Your task to perform on an android device: Clear all items from cart on walmart.com. Search for beats solo 3 on walmart.com, select the first entry, and add it to the cart. Image 0: 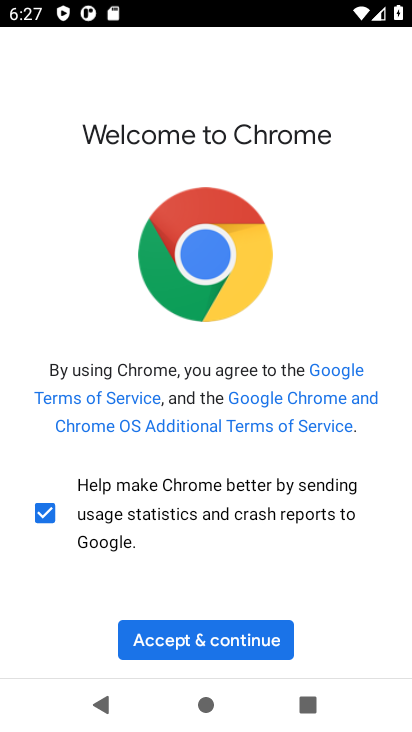
Step 0: click (187, 647)
Your task to perform on an android device: Clear all items from cart on walmart.com. Search for beats solo 3 on walmart.com, select the first entry, and add it to the cart. Image 1: 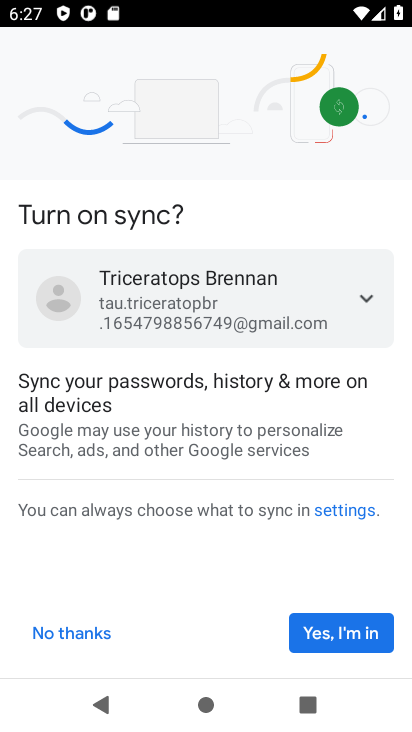
Step 1: click (70, 637)
Your task to perform on an android device: Clear all items from cart on walmart.com. Search for beats solo 3 on walmart.com, select the first entry, and add it to the cart. Image 2: 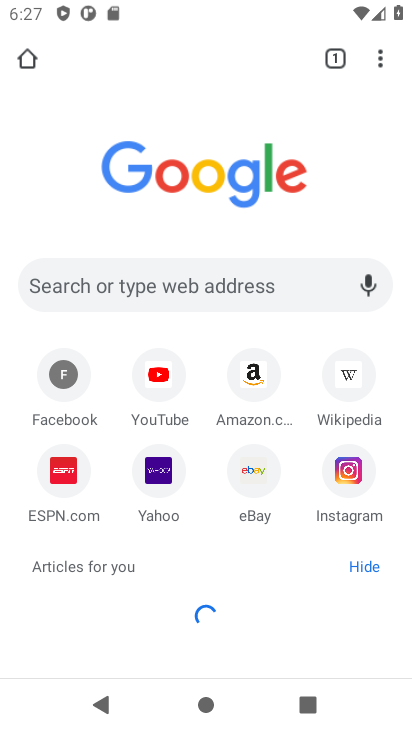
Step 2: click (83, 283)
Your task to perform on an android device: Clear all items from cart on walmart.com. Search for beats solo 3 on walmart.com, select the first entry, and add it to the cart. Image 3: 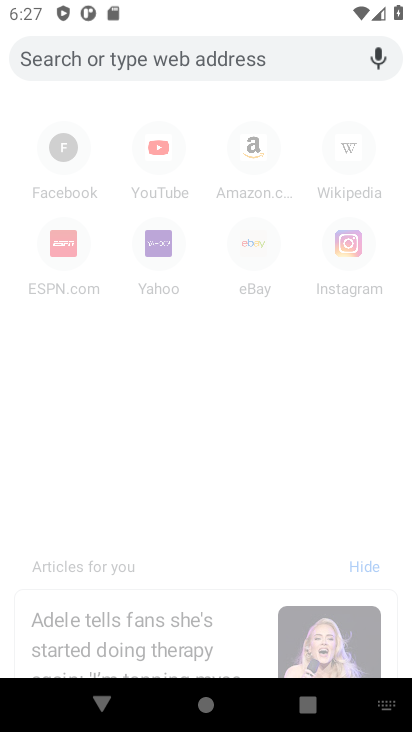
Step 3: type "walmart.com"
Your task to perform on an android device: Clear all items from cart on walmart.com. Search for beats solo 3 on walmart.com, select the first entry, and add it to the cart. Image 4: 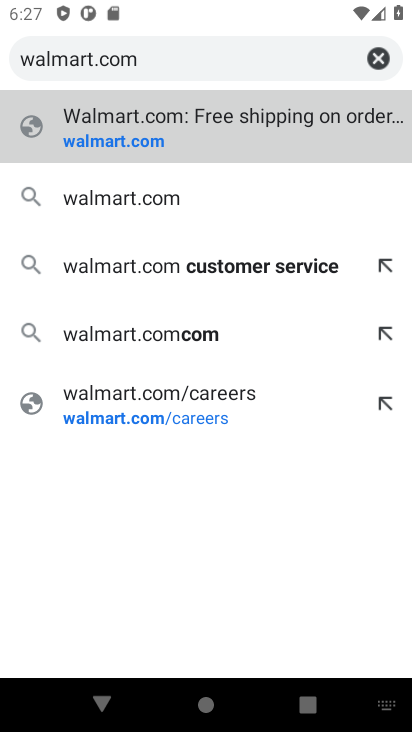
Step 4: click (95, 153)
Your task to perform on an android device: Clear all items from cart on walmart.com. Search for beats solo 3 on walmart.com, select the first entry, and add it to the cart. Image 5: 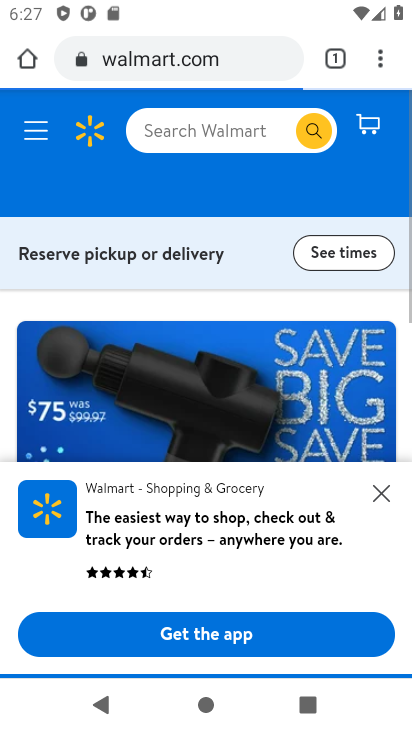
Step 5: click (371, 129)
Your task to perform on an android device: Clear all items from cart on walmart.com. Search for beats solo 3 on walmart.com, select the first entry, and add it to the cart. Image 6: 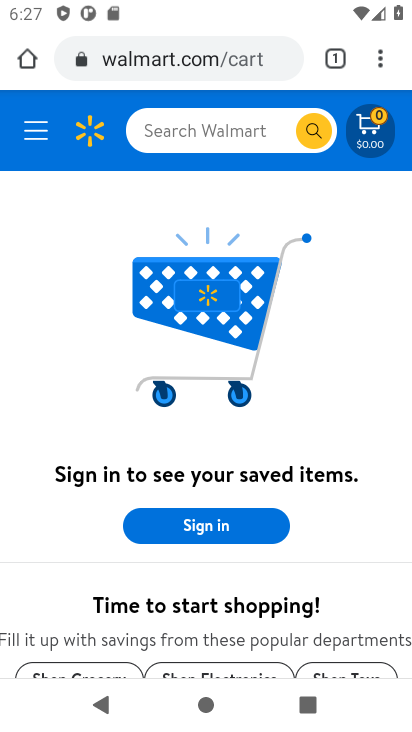
Step 6: click (163, 138)
Your task to perform on an android device: Clear all items from cart on walmart.com. Search for beats solo 3 on walmart.com, select the first entry, and add it to the cart. Image 7: 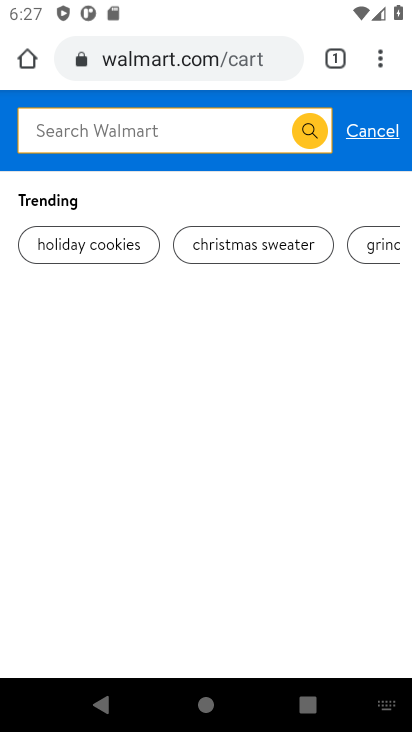
Step 7: type "beats solo 3"
Your task to perform on an android device: Clear all items from cart on walmart.com. Search for beats solo 3 on walmart.com, select the first entry, and add it to the cart. Image 8: 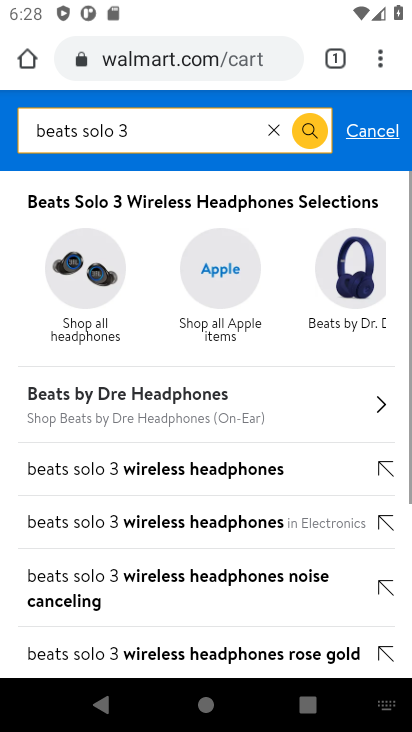
Step 8: click (308, 135)
Your task to perform on an android device: Clear all items from cart on walmart.com. Search for beats solo 3 on walmart.com, select the first entry, and add it to the cart. Image 9: 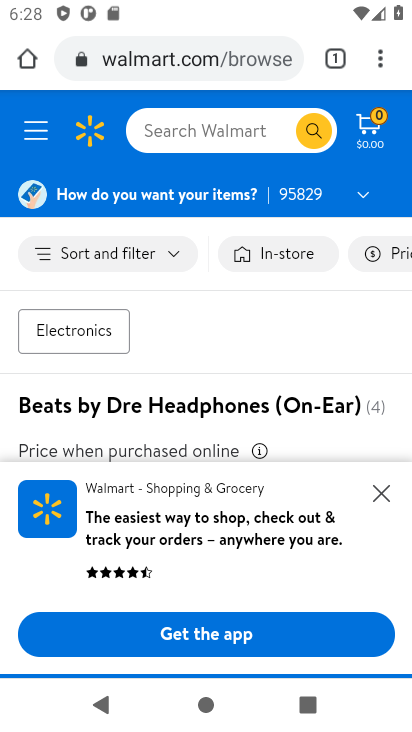
Step 9: click (381, 494)
Your task to perform on an android device: Clear all items from cart on walmart.com. Search for beats solo 3 on walmart.com, select the first entry, and add it to the cart. Image 10: 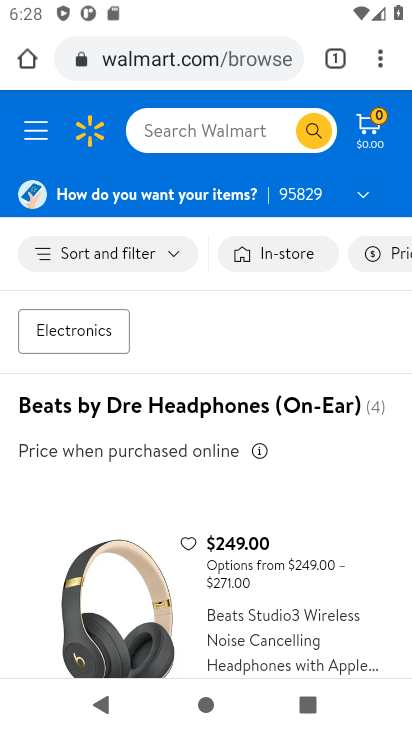
Step 10: task complete